Your task to perform on an android device: Go to network settings Image 0: 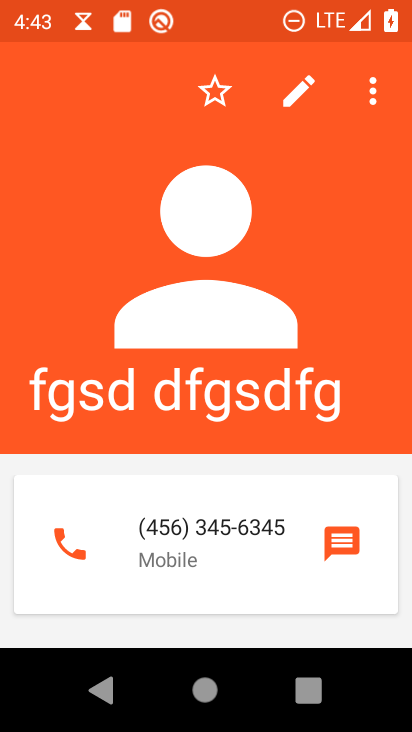
Step 0: press home button
Your task to perform on an android device: Go to network settings Image 1: 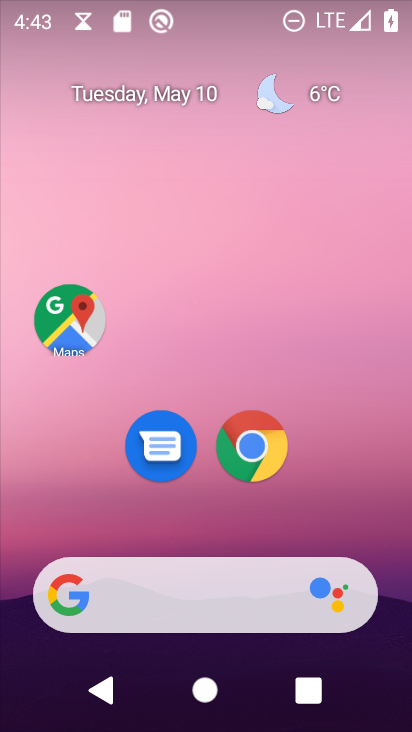
Step 1: drag from (206, 521) to (209, 157)
Your task to perform on an android device: Go to network settings Image 2: 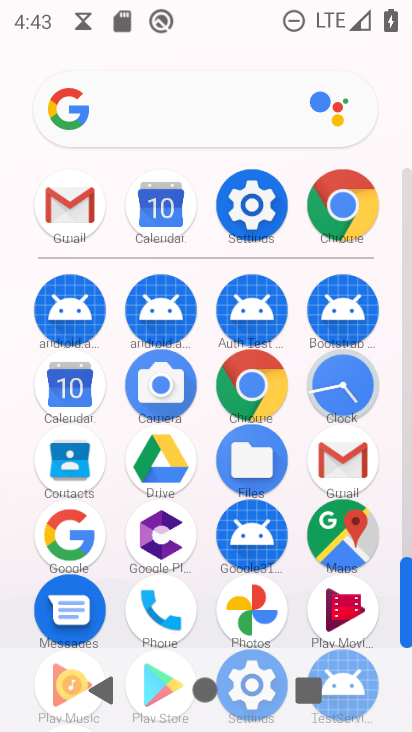
Step 2: click (257, 192)
Your task to perform on an android device: Go to network settings Image 3: 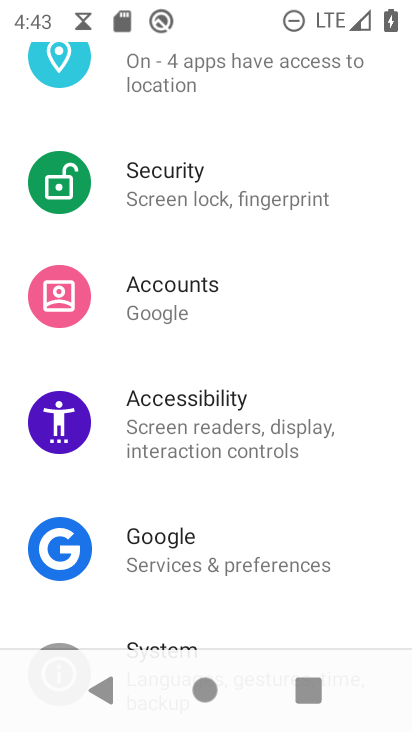
Step 3: drag from (239, 146) to (180, 650)
Your task to perform on an android device: Go to network settings Image 4: 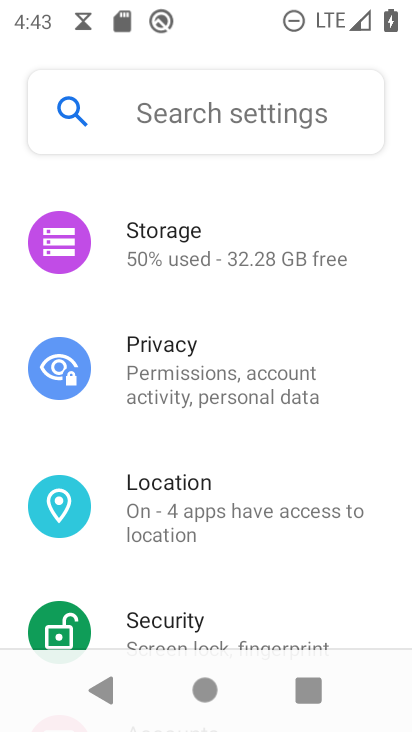
Step 4: drag from (233, 286) to (188, 701)
Your task to perform on an android device: Go to network settings Image 5: 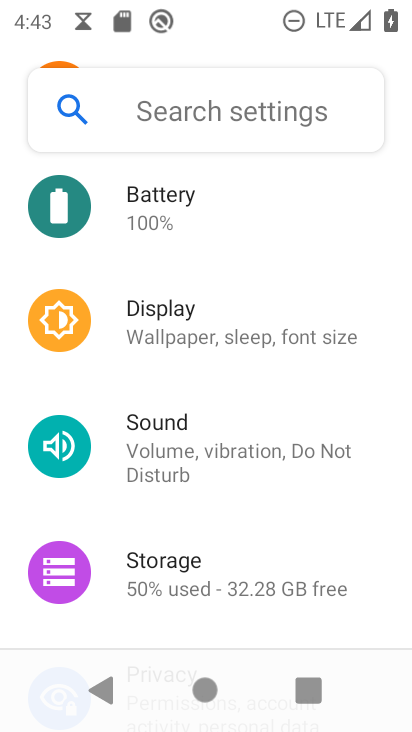
Step 5: drag from (235, 274) to (203, 618)
Your task to perform on an android device: Go to network settings Image 6: 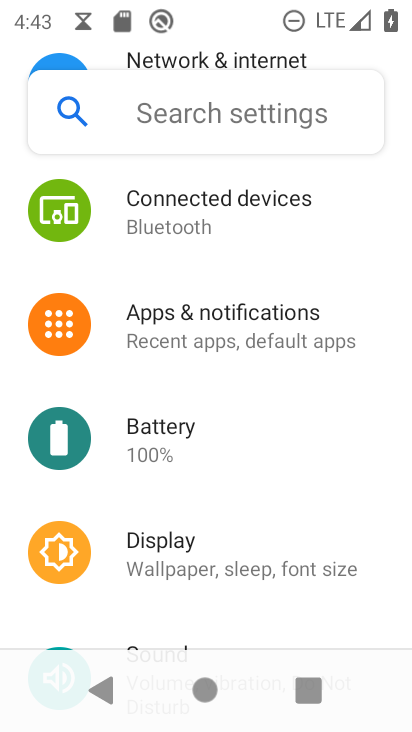
Step 6: drag from (226, 265) to (195, 658)
Your task to perform on an android device: Go to network settings Image 7: 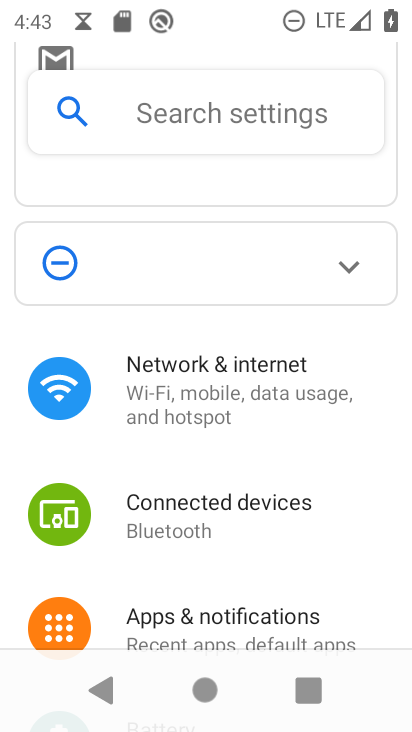
Step 7: click (185, 364)
Your task to perform on an android device: Go to network settings Image 8: 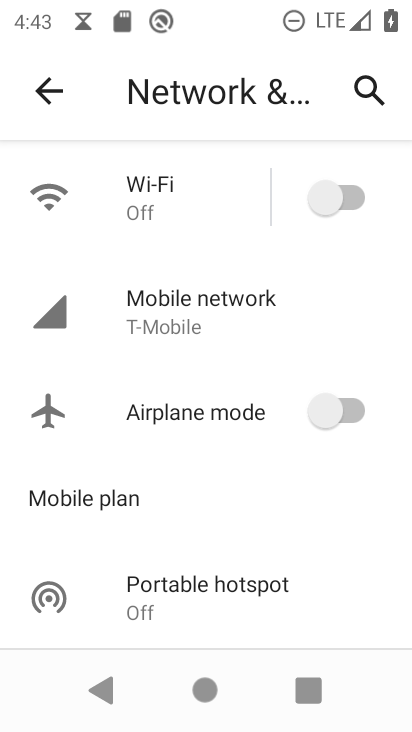
Step 8: click (200, 314)
Your task to perform on an android device: Go to network settings Image 9: 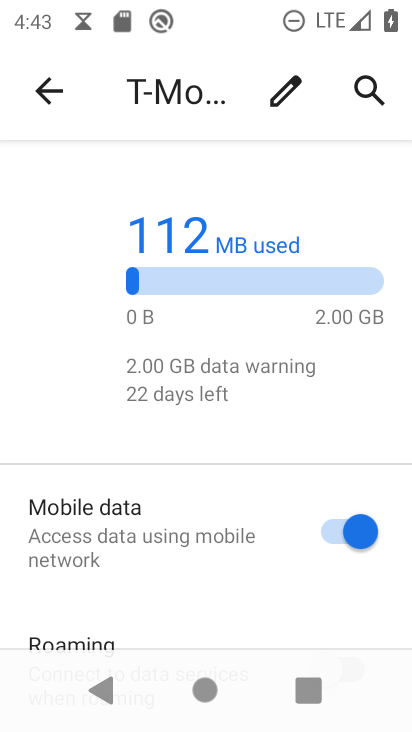
Step 9: task complete